Your task to perform on an android device: turn on notifications settings in the gmail app Image 0: 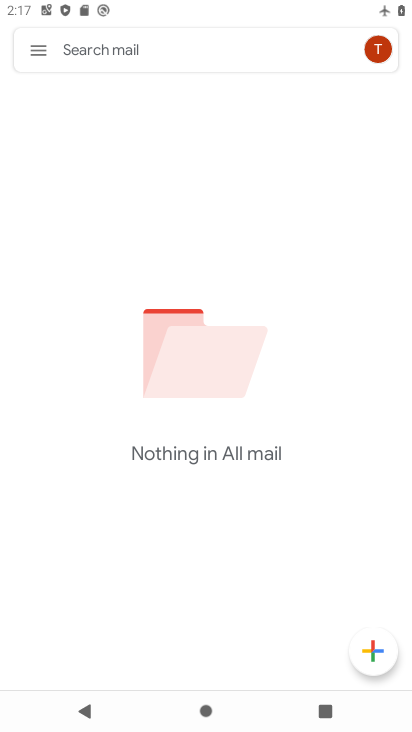
Step 0: press home button
Your task to perform on an android device: turn on notifications settings in the gmail app Image 1: 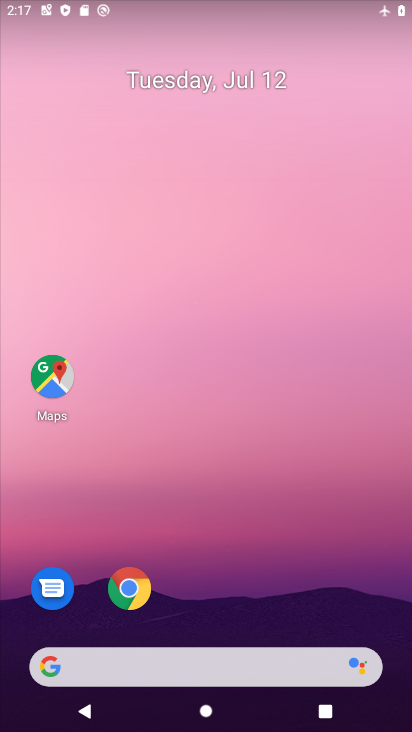
Step 1: drag from (184, 644) to (196, 70)
Your task to perform on an android device: turn on notifications settings in the gmail app Image 2: 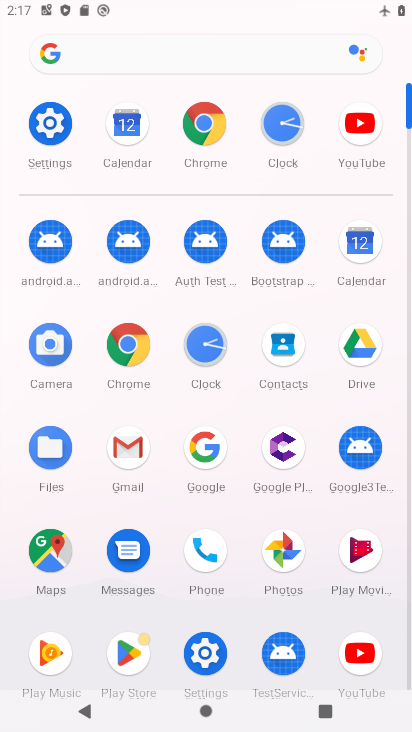
Step 2: click (131, 451)
Your task to perform on an android device: turn on notifications settings in the gmail app Image 3: 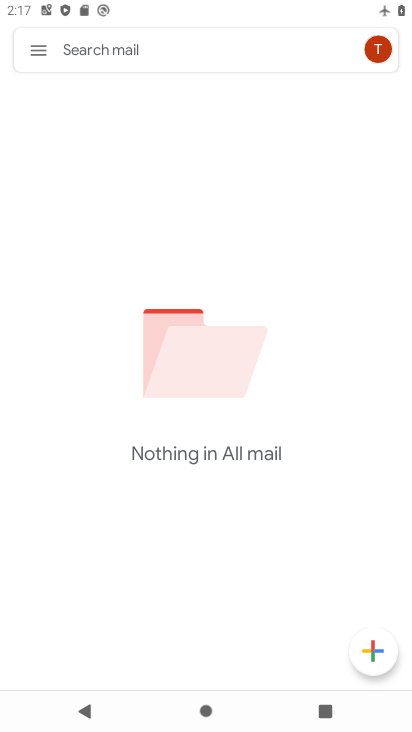
Step 3: click (30, 52)
Your task to perform on an android device: turn on notifications settings in the gmail app Image 4: 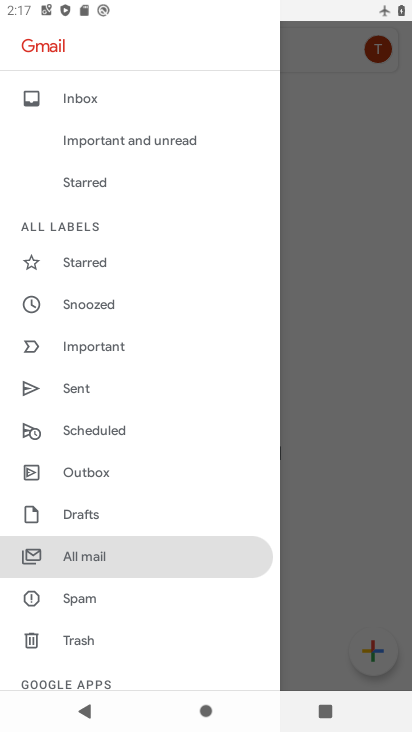
Step 4: drag from (97, 588) to (89, 158)
Your task to perform on an android device: turn on notifications settings in the gmail app Image 5: 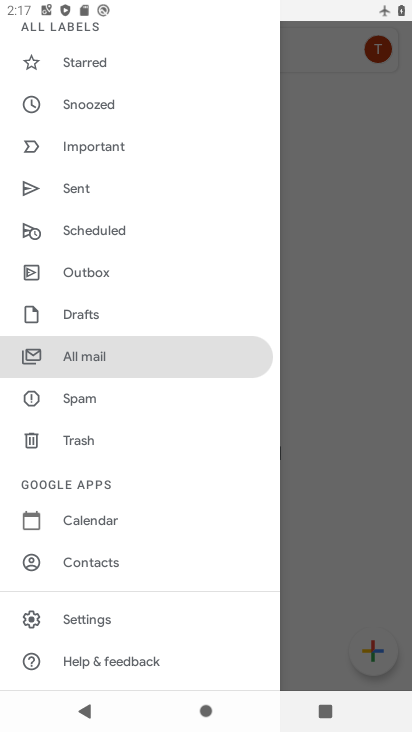
Step 5: click (86, 627)
Your task to perform on an android device: turn on notifications settings in the gmail app Image 6: 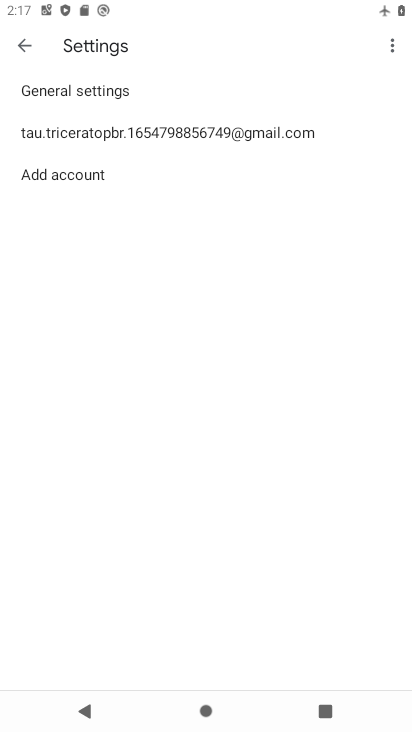
Step 6: click (156, 133)
Your task to perform on an android device: turn on notifications settings in the gmail app Image 7: 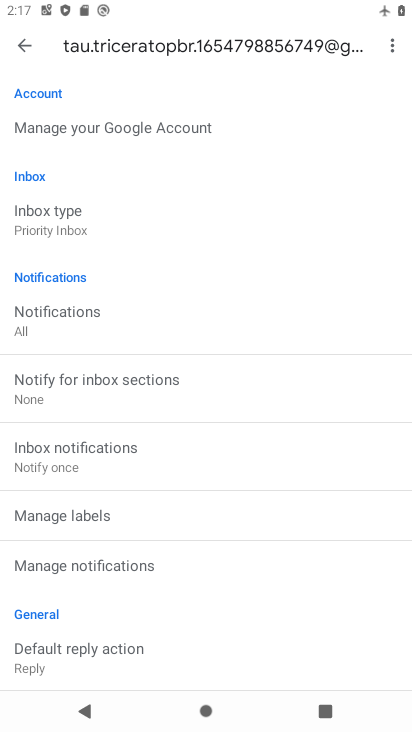
Step 7: click (121, 569)
Your task to perform on an android device: turn on notifications settings in the gmail app Image 8: 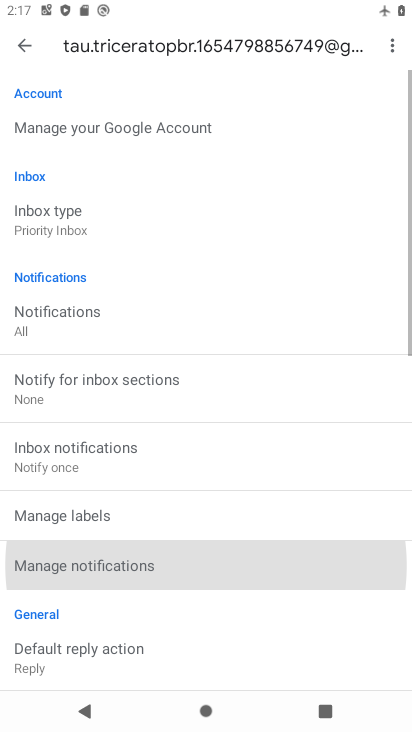
Step 8: click (121, 569)
Your task to perform on an android device: turn on notifications settings in the gmail app Image 9: 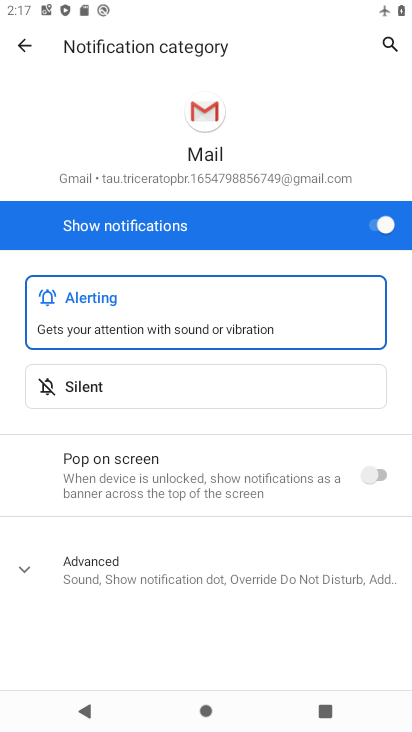
Step 9: task complete